Your task to perform on an android device: What is the recent news? Image 0: 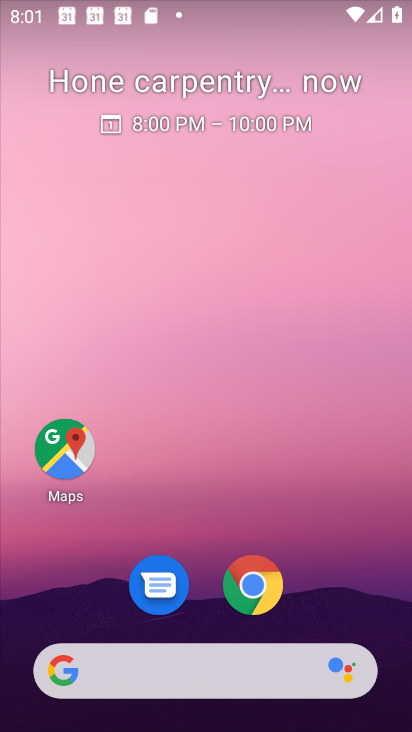
Step 0: click (236, 667)
Your task to perform on an android device: What is the recent news? Image 1: 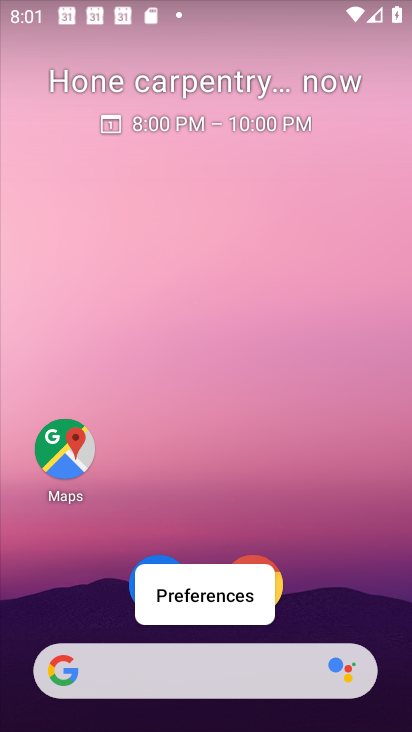
Step 1: click (228, 678)
Your task to perform on an android device: What is the recent news? Image 2: 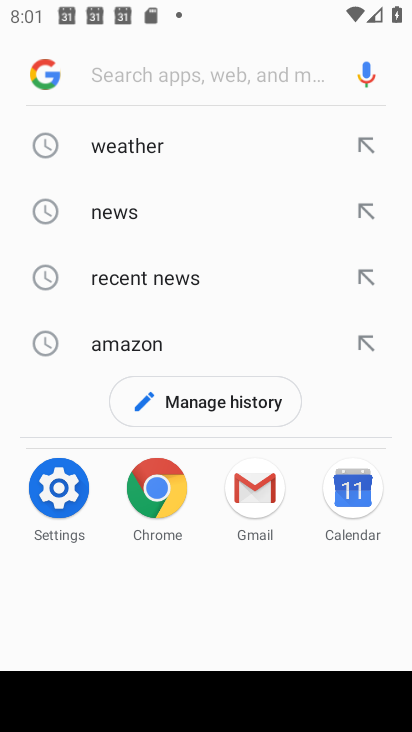
Step 2: click (88, 201)
Your task to perform on an android device: What is the recent news? Image 3: 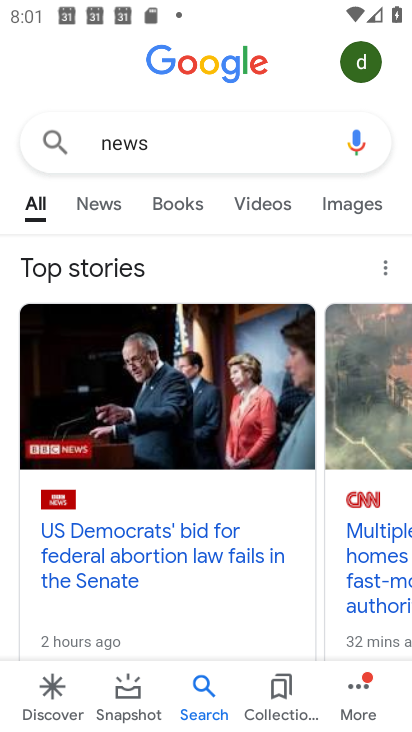
Step 3: click (102, 206)
Your task to perform on an android device: What is the recent news? Image 4: 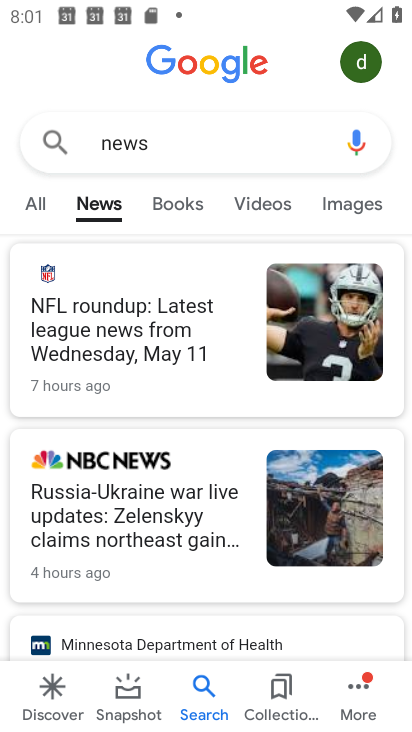
Step 4: task complete